Your task to perform on an android device: open app "PlayWell" Image 0: 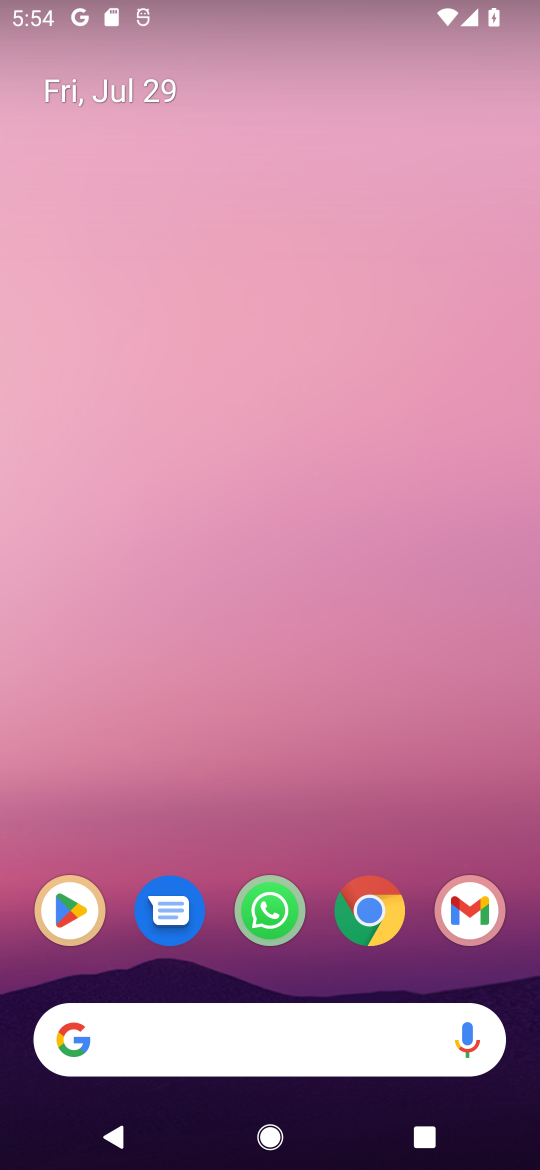
Step 0: click (69, 909)
Your task to perform on an android device: open app "PlayWell" Image 1: 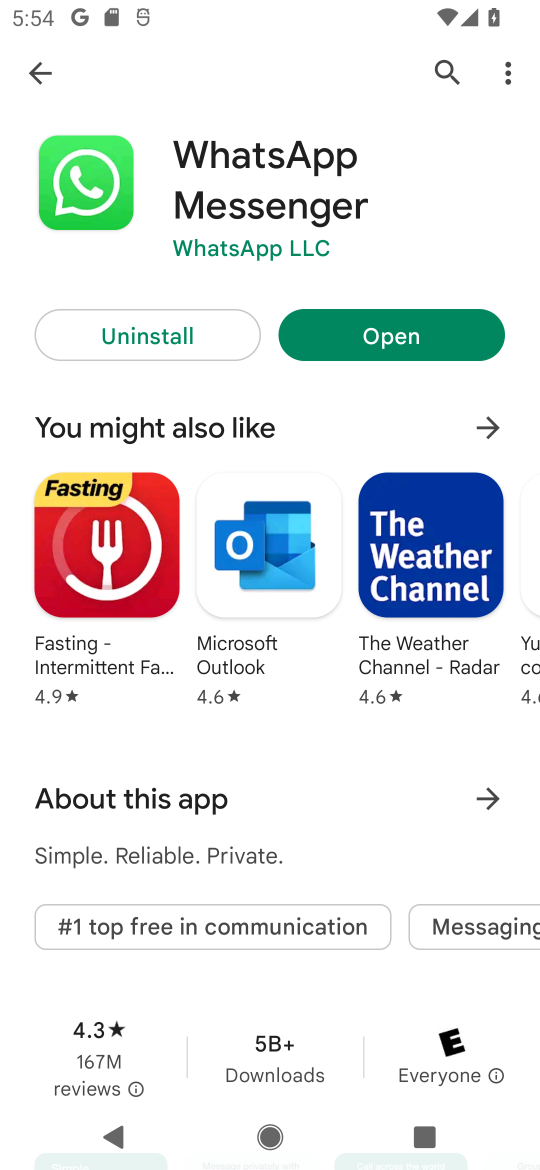
Step 1: click (431, 62)
Your task to perform on an android device: open app "PlayWell" Image 2: 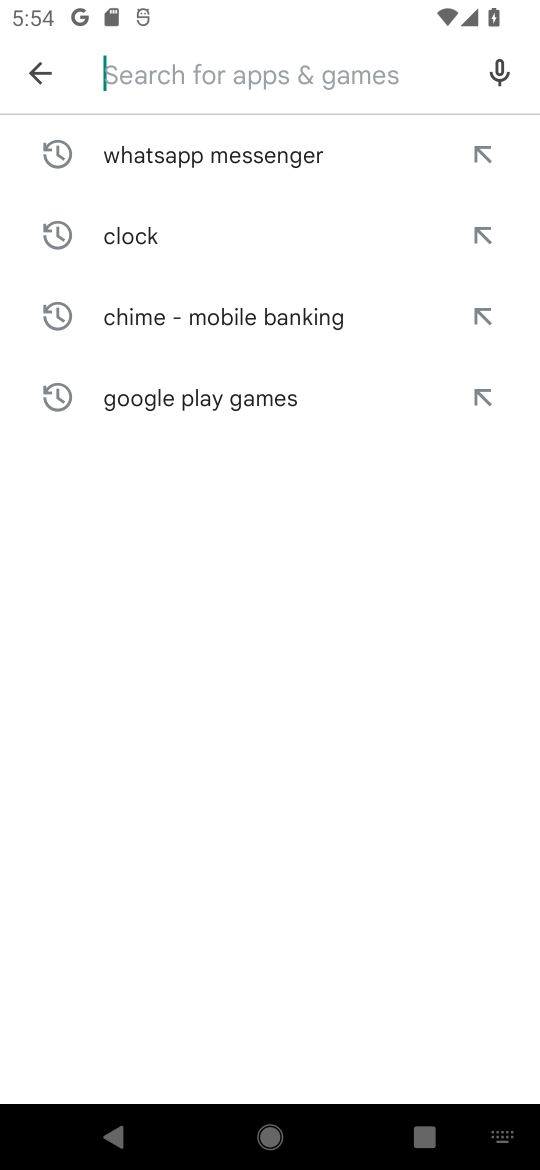
Step 2: type "playwell"
Your task to perform on an android device: open app "PlayWell" Image 3: 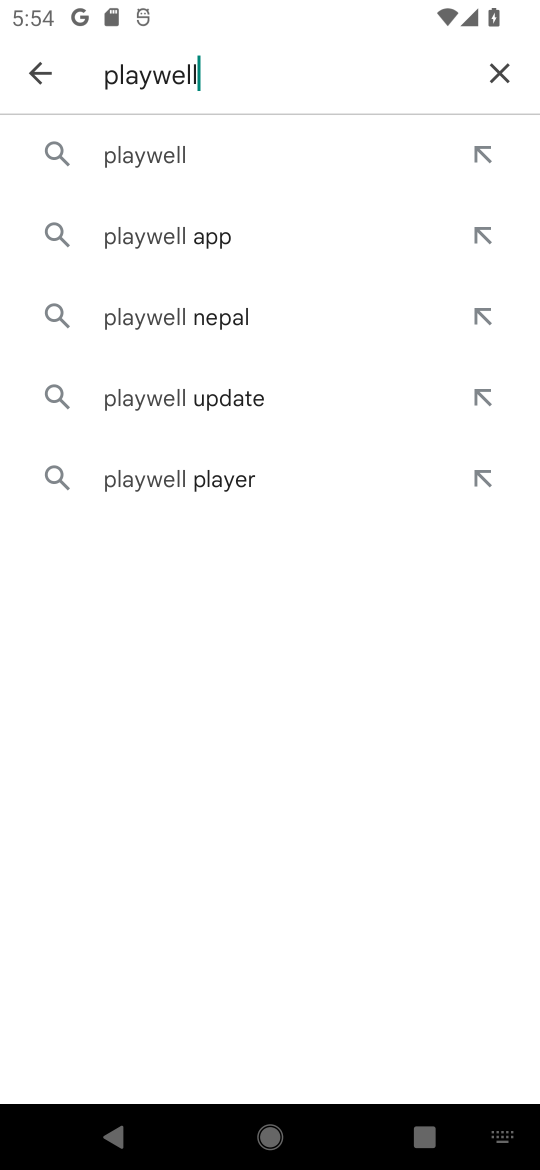
Step 3: click (256, 151)
Your task to perform on an android device: open app "PlayWell" Image 4: 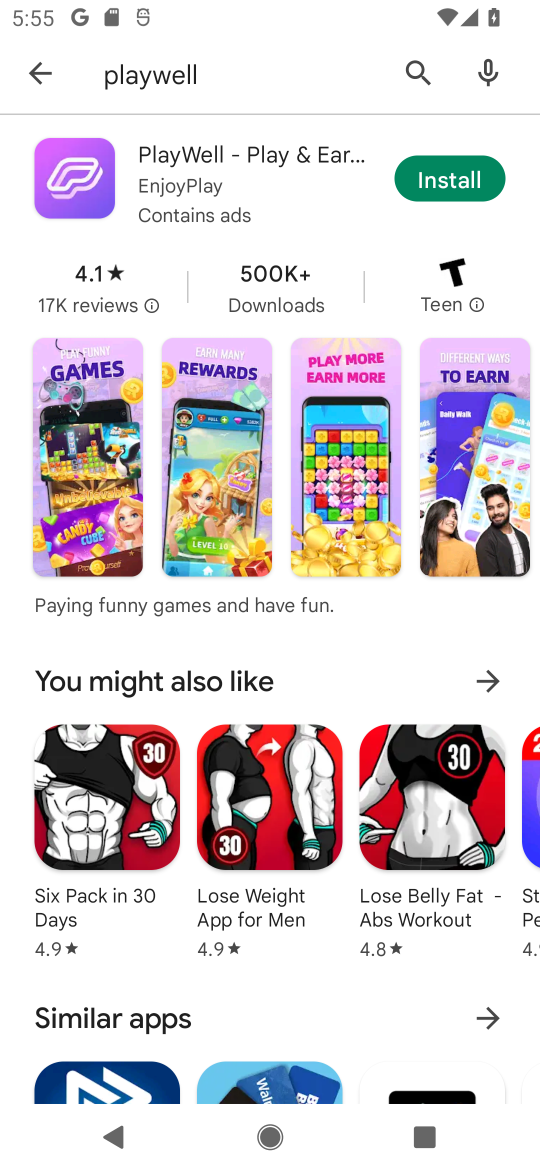
Step 4: click (229, 127)
Your task to perform on an android device: open app "PlayWell" Image 5: 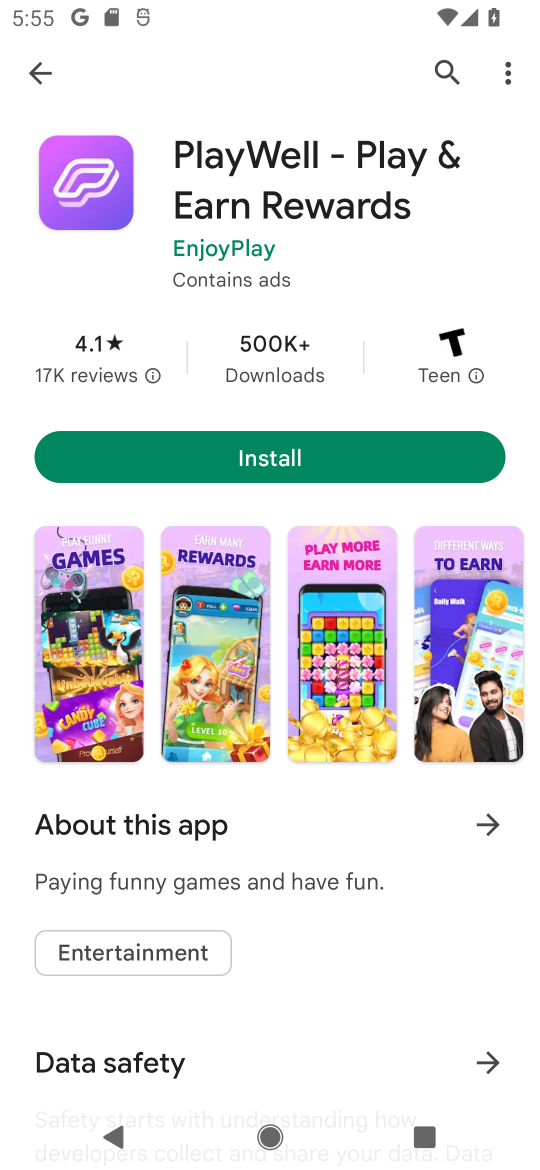
Step 5: task complete